Your task to perform on an android device: change timer sound Image 0: 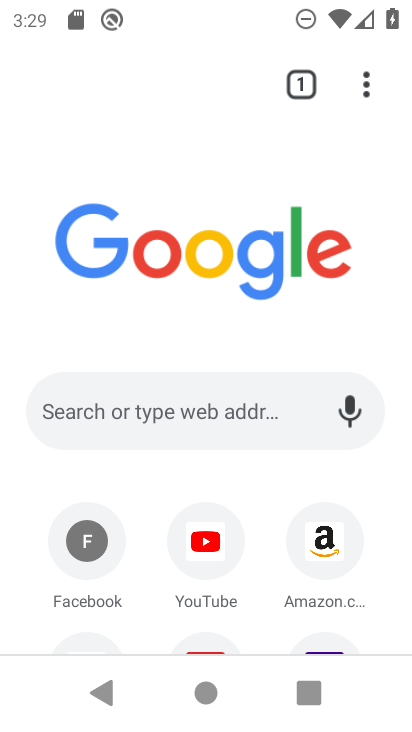
Step 0: press home button
Your task to perform on an android device: change timer sound Image 1: 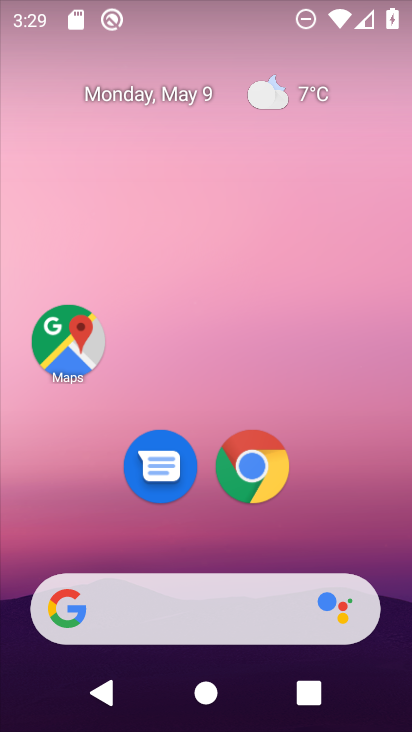
Step 1: drag from (91, 546) to (260, 271)
Your task to perform on an android device: change timer sound Image 2: 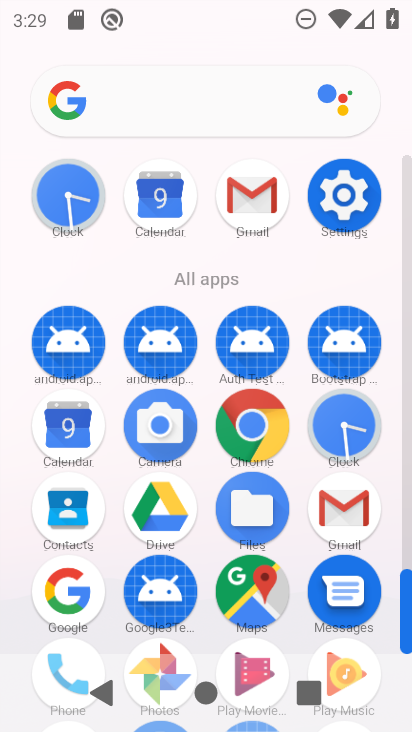
Step 2: click (340, 414)
Your task to perform on an android device: change timer sound Image 3: 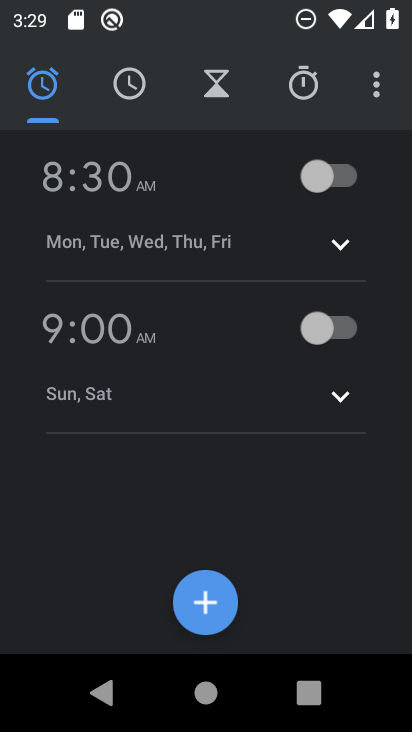
Step 3: click (382, 92)
Your task to perform on an android device: change timer sound Image 4: 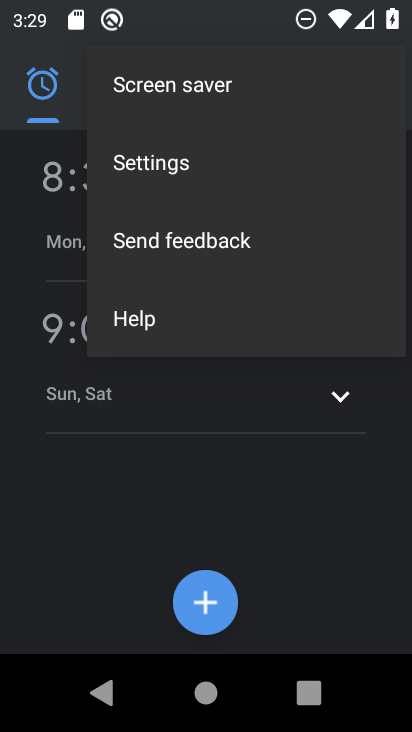
Step 4: click (207, 167)
Your task to perform on an android device: change timer sound Image 5: 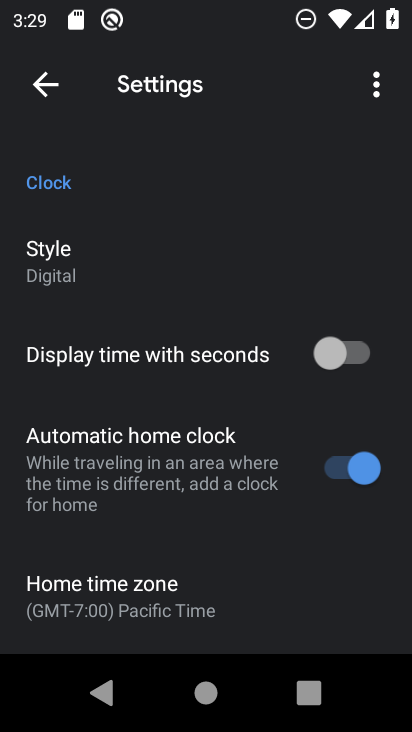
Step 5: drag from (165, 588) to (362, 179)
Your task to perform on an android device: change timer sound Image 6: 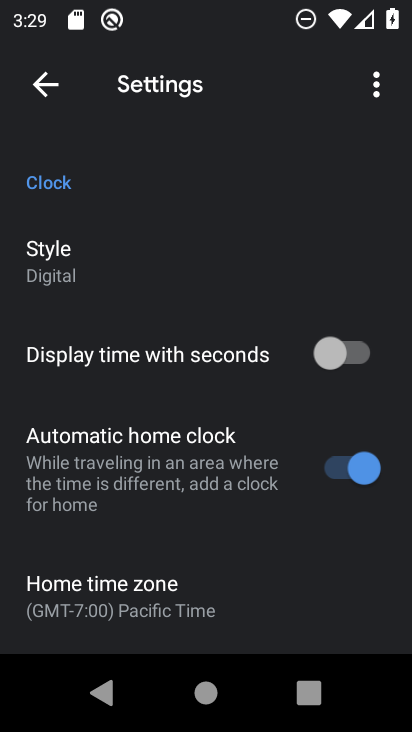
Step 6: drag from (135, 554) to (271, 229)
Your task to perform on an android device: change timer sound Image 7: 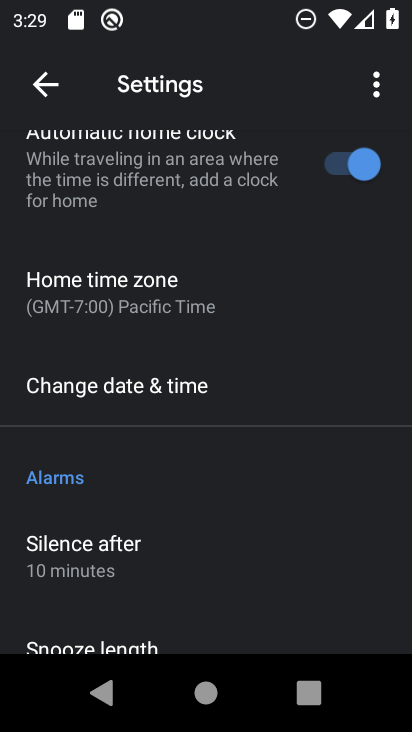
Step 7: drag from (196, 598) to (291, 291)
Your task to perform on an android device: change timer sound Image 8: 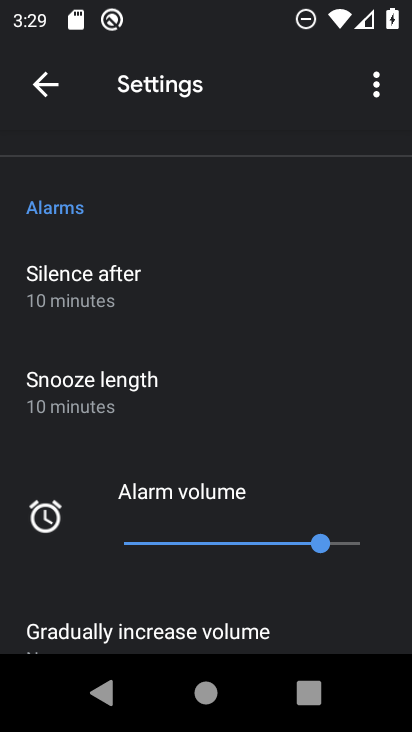
Step 8: drag from (155, 615) to (295, 325)
Your task to perform on an android device: change timer sound Image 9: 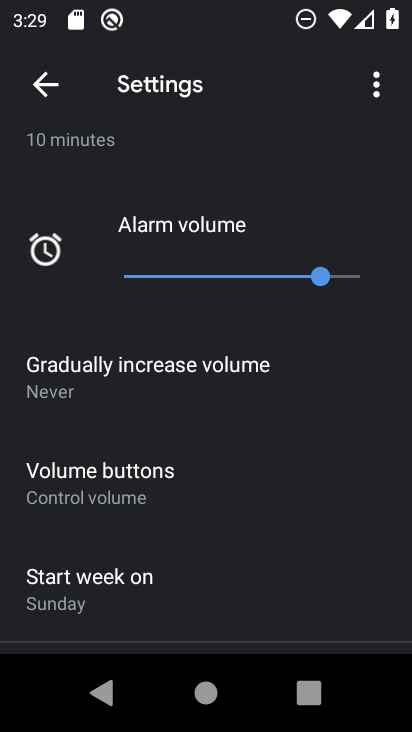
Step 9: drag from (173, 544) to (292, 217)
Your task to perform on an android device: change timer sound Image 10: 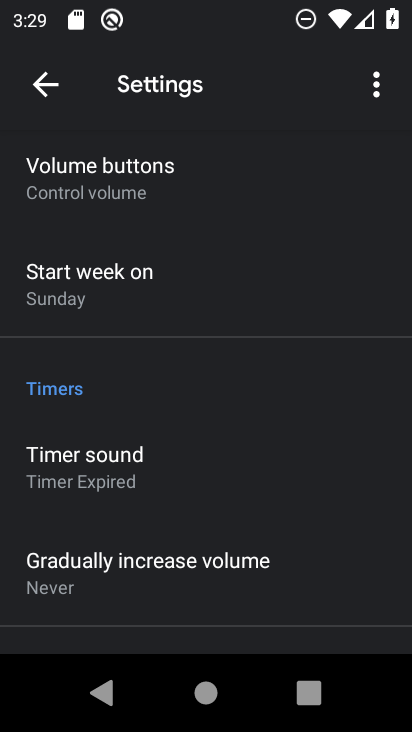
Step 10: click (155, 456)
Your task to perform on an android device: change timer sound Image 11: 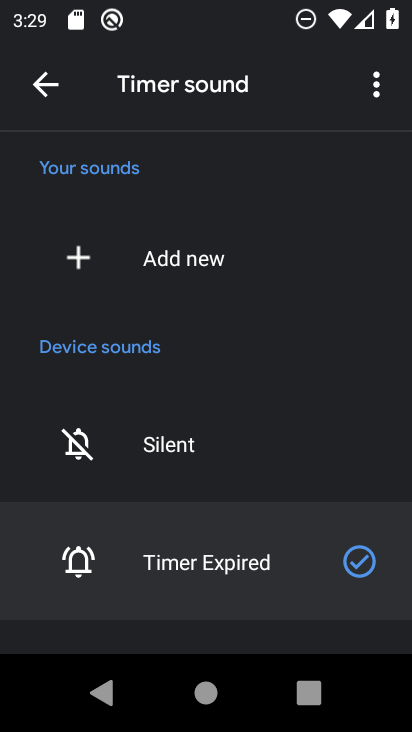
Step 11: drag from (141, 618) to (239, 276)
Your task to perform on an android device: change timer sound Image 12: 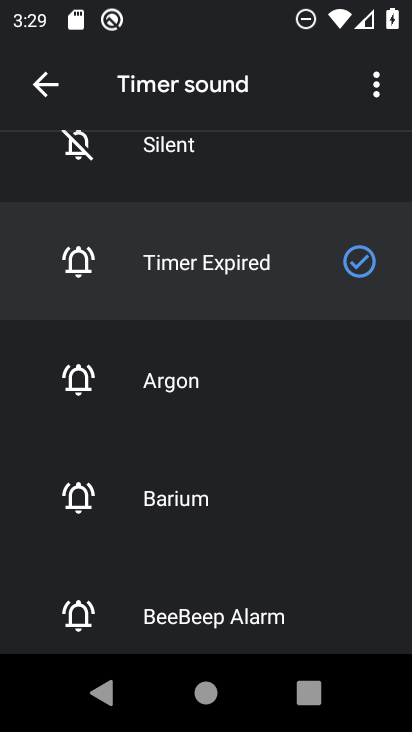
Step 12: click (114, 387)
Your task to perform on an android device: change timer sound Image 13: 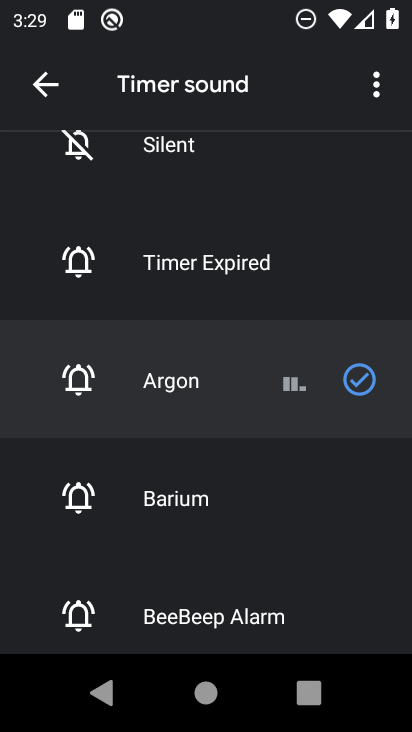
Step 13: task complete